Your task to perform on an android device: Open a new Chrome private window Image 0: 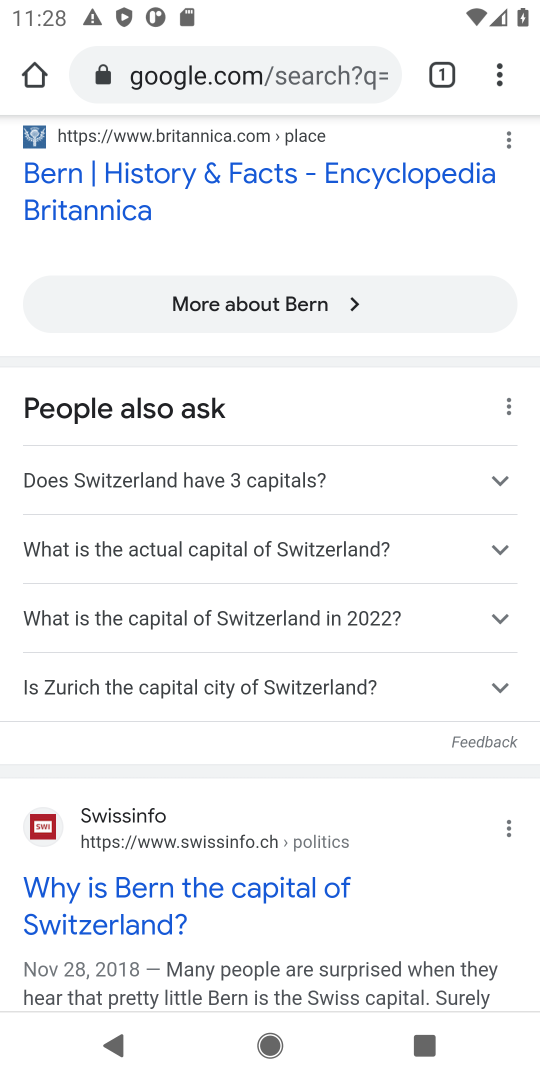
Step 0: drag from (290, 189) to (225, 960)
Your task to perform on an android device: Open a new Chrome private window Image 1: 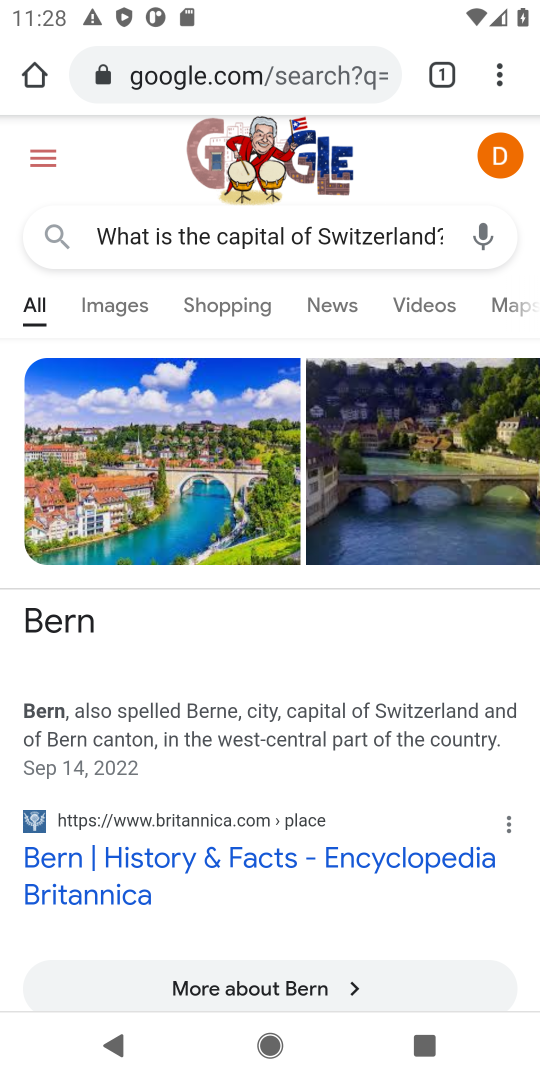
Step 1: click (225, 71)
Your task to perform on an android device: Open a new Chrome private window Image 2: 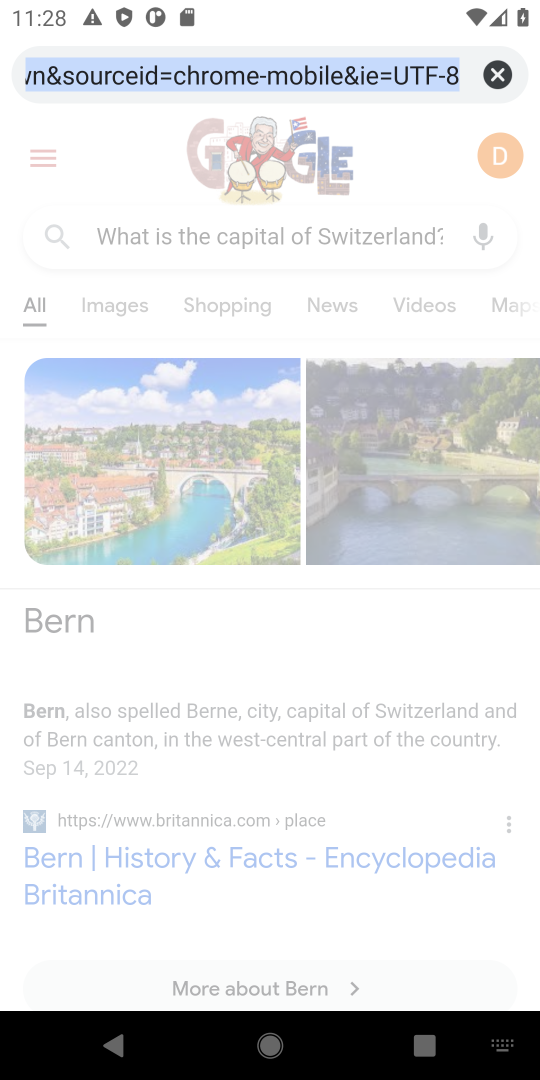
Step 2: click (501, 73)
Your task to perform on an android device: Open a new Chrome private window Image 3: 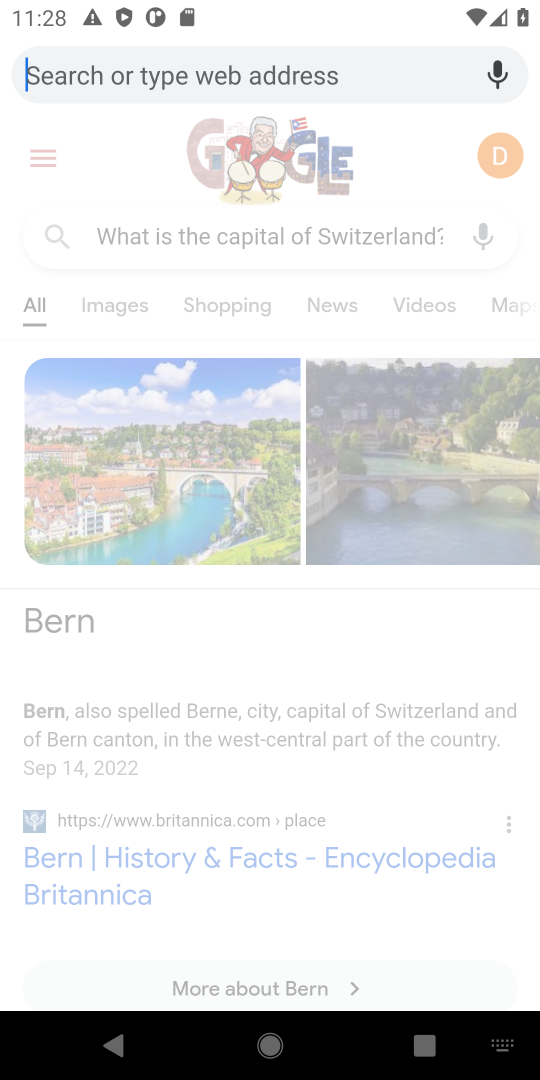
Step 3: task complete